Your task to perform on an android device: toggle translation in the chrome app Image 0: 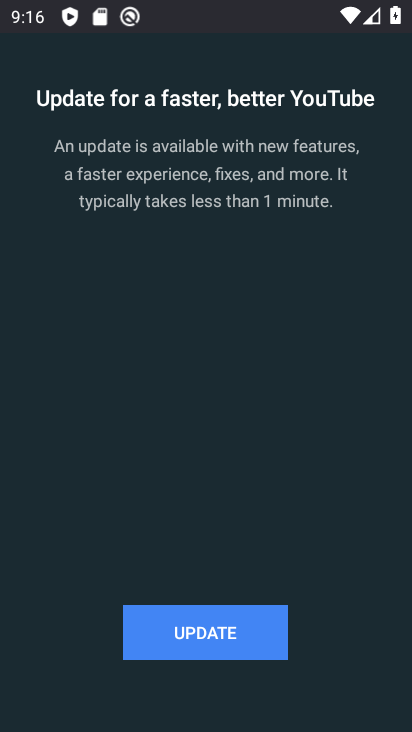
Step 0: press back button
Your task to perform on an android device: toggle translation in the chrome app Image 1: 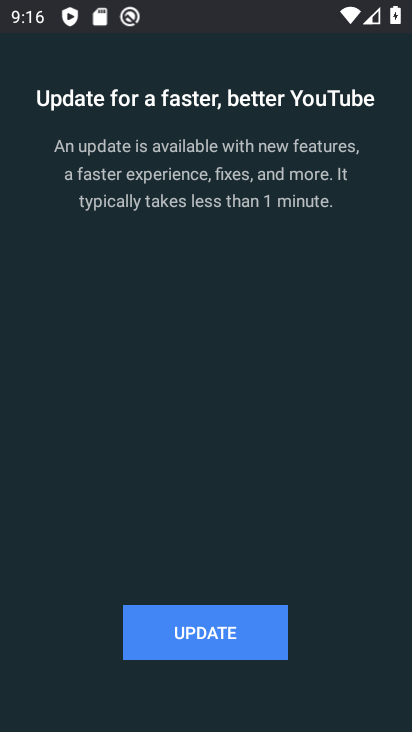
Step 1: press back button
Your task to perform on an android device: toggle translation in the chrome app Image 2: 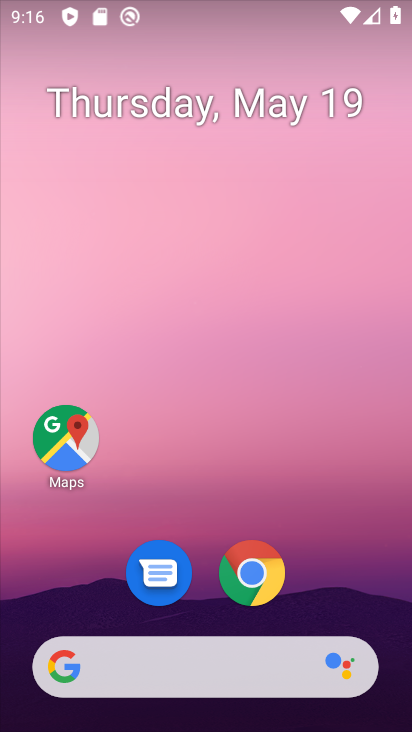
Step 2: click (308, 589)
Your task to perform on an android device: toggle translation in the chrome app Image 3: 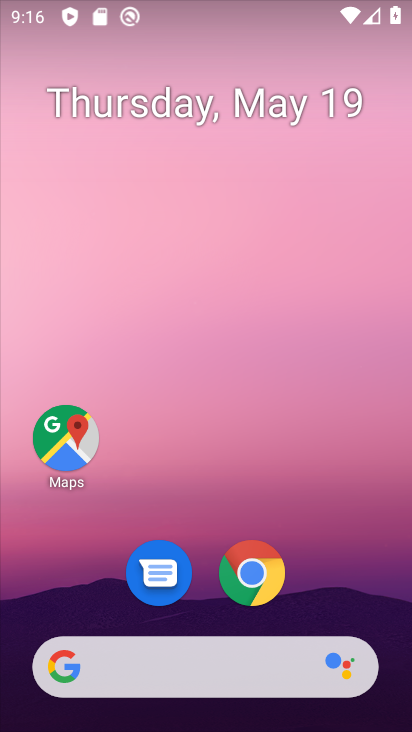
Step 3: click (256, 585)
Your task to perform on an android device: toggle translation in the chrome app Image 4: 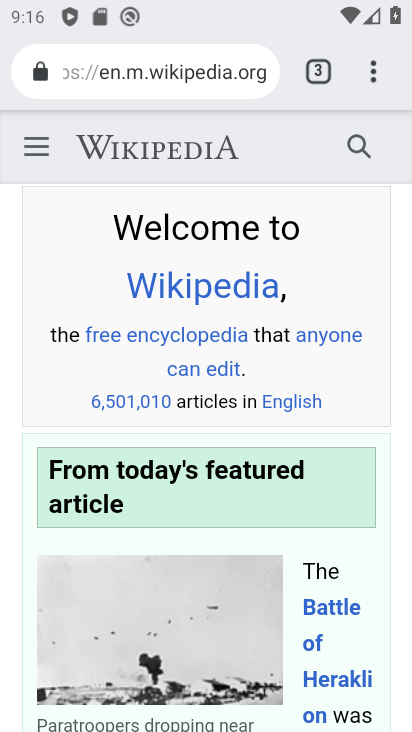
Step 4: click (362, 70)
Your task to perform on an android device: toggle translation in the chrome app Image 5: 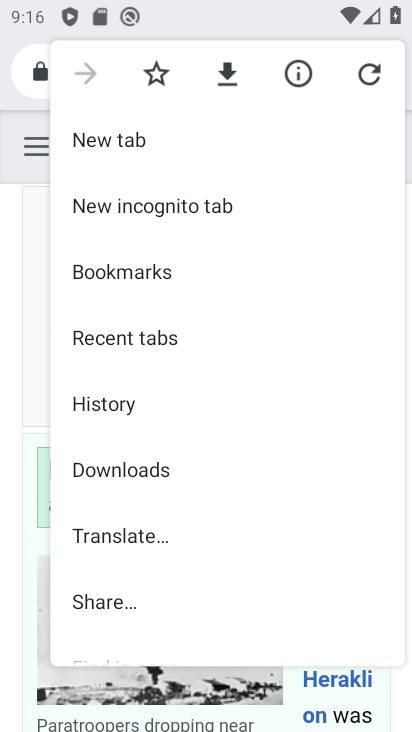
Step 5: drag from (146, 645) to (206, 406)
Your task to perform on an android device: toggle translation in the chrome app Image 6: 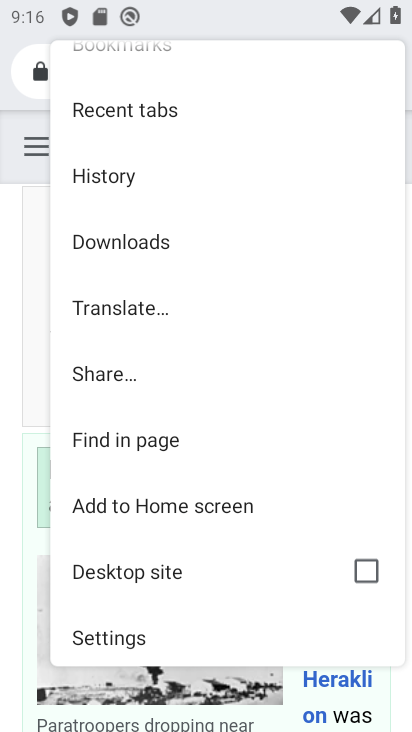
Step 6: drag from (185, 615) to (209, 402)
Your task to perform on an android device: toggle translation in the chrome app Image 7: 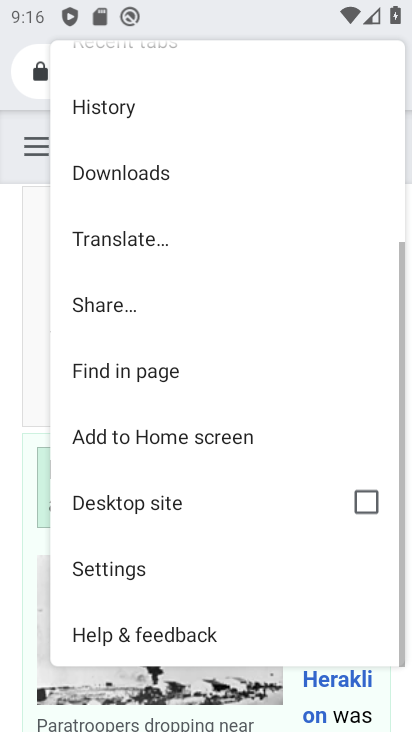
Step 7: click (135, 550)
Your task to perform on an android device: toggle translation in the chrome app Image 8: 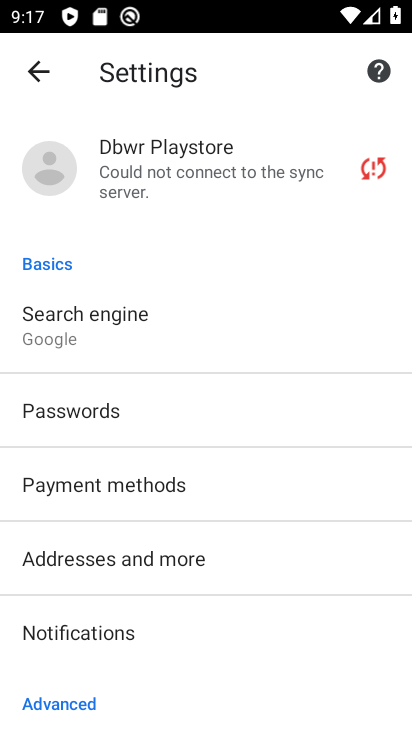
Step 8: drag from (191, 622) to (201, 367)
Your task to perform on an android device: toggle translation in the chrome app Image 9: 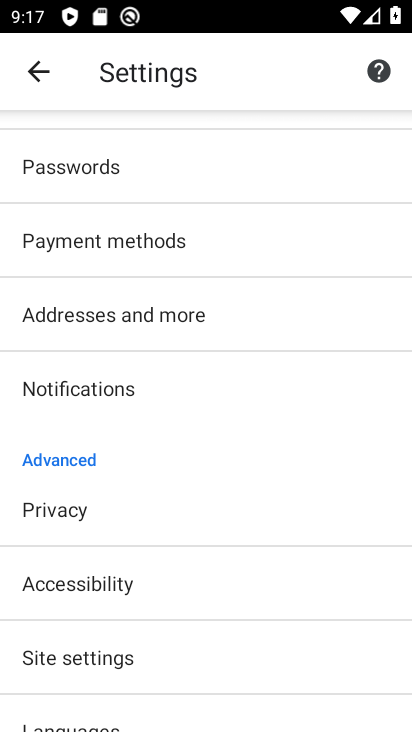
Step 9: drag from (150, 632) to (187, 355)
Your task to perform on an android device: toggle translation in the chrome app Image 10: 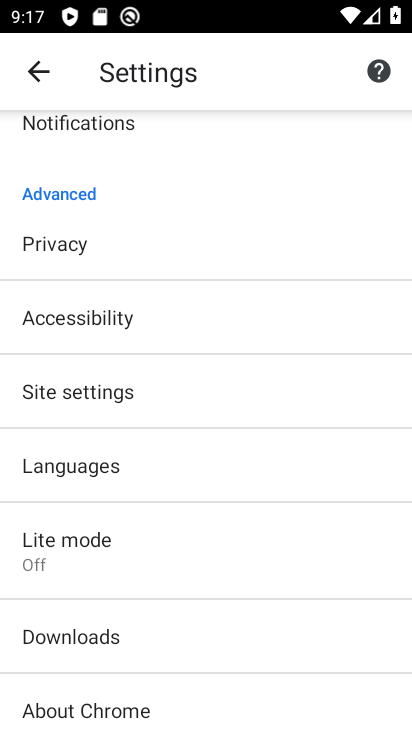
Step 10: click (158, 466)
Your task to perform on an android device: toggle translation in the chrome app Image 11: 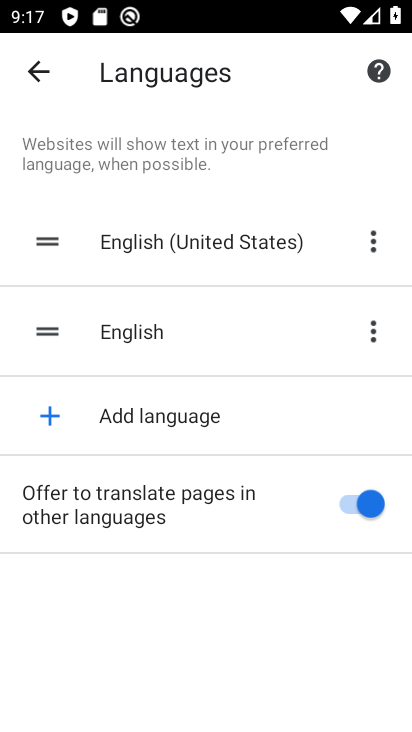
Step 11: click (349, 511)
Your task to perform on an android device: toggle translation in the chrome app Image 12: 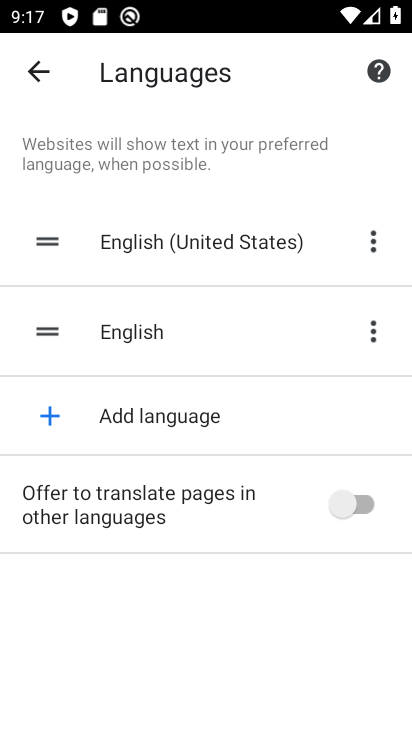
Step 12: task complete